Your task to perform on an android device: Search for the best selling video games at Target Image 0: 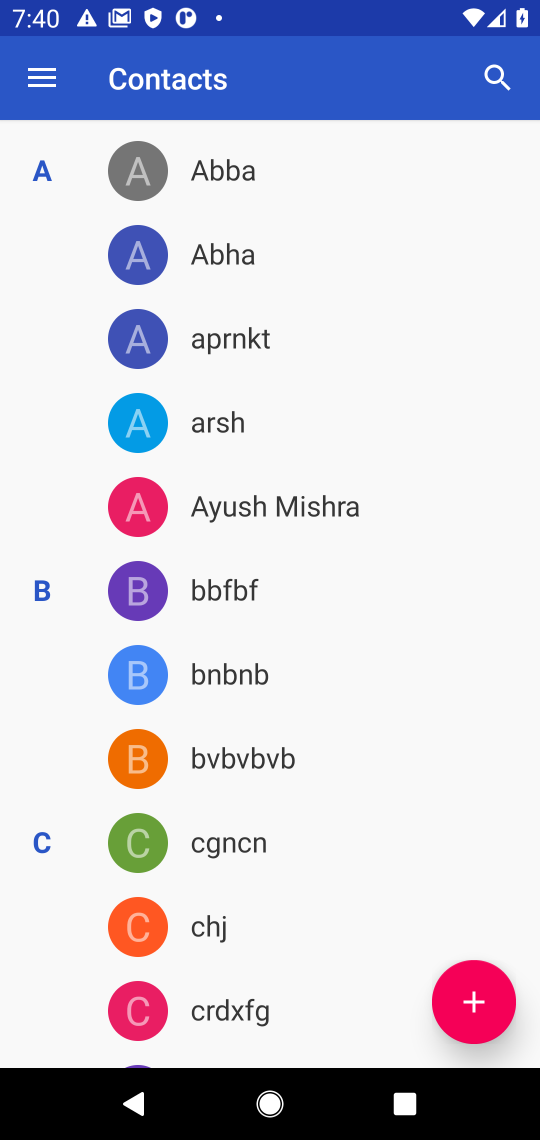
Step 0: press home button
Your task to perform on an android device: Search for the best selling video games at Target Image 1: 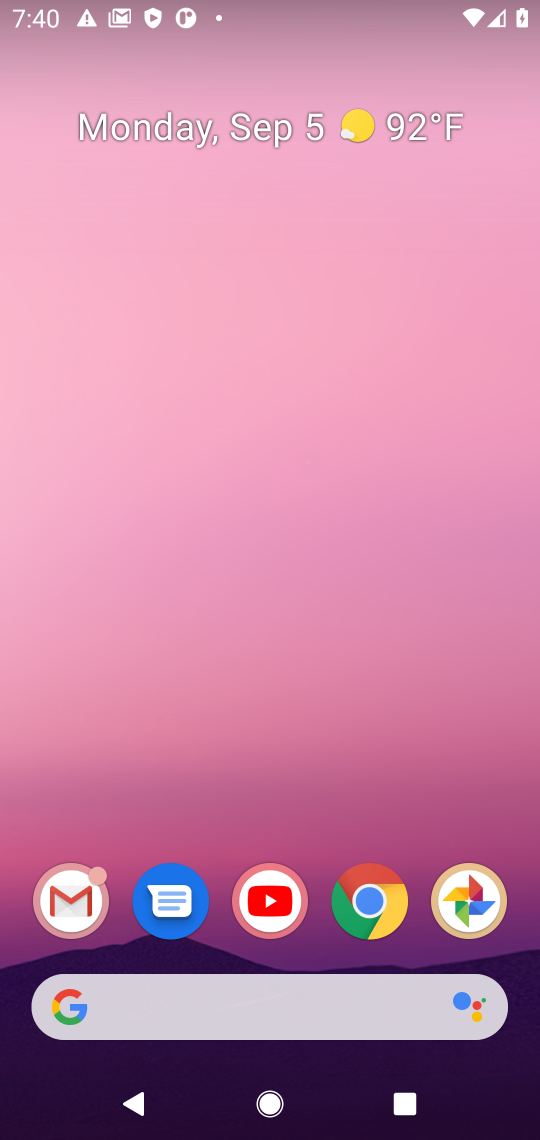
Step 1: click (389, 909)
Your task to perform on an android device: Search for the best selling video games at Target Image 2: 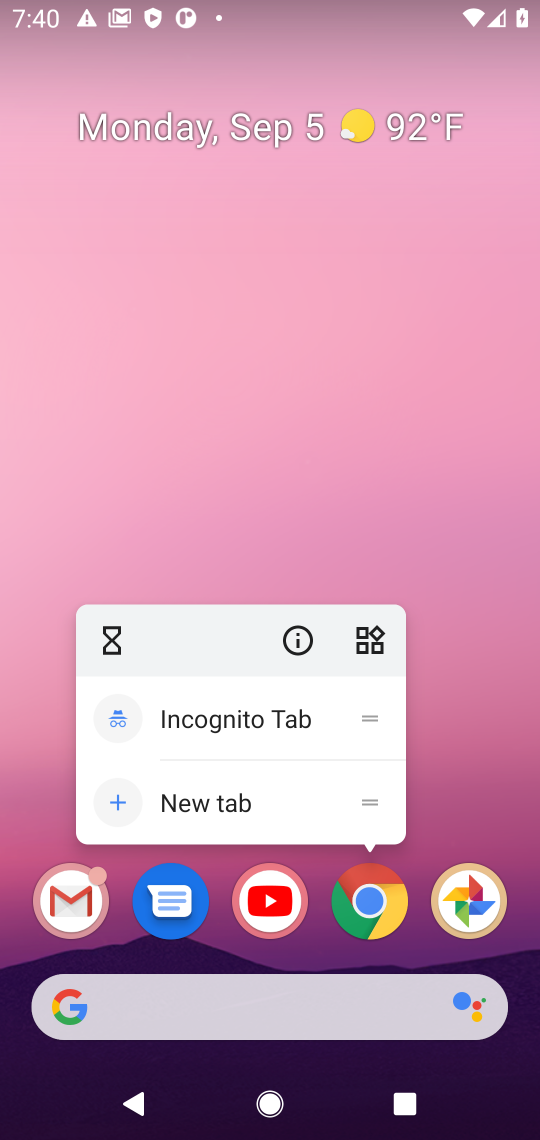
Step 2: click (372, 891)
Your task to perform on an android device: Search for the best selling video games at Target Image 3: 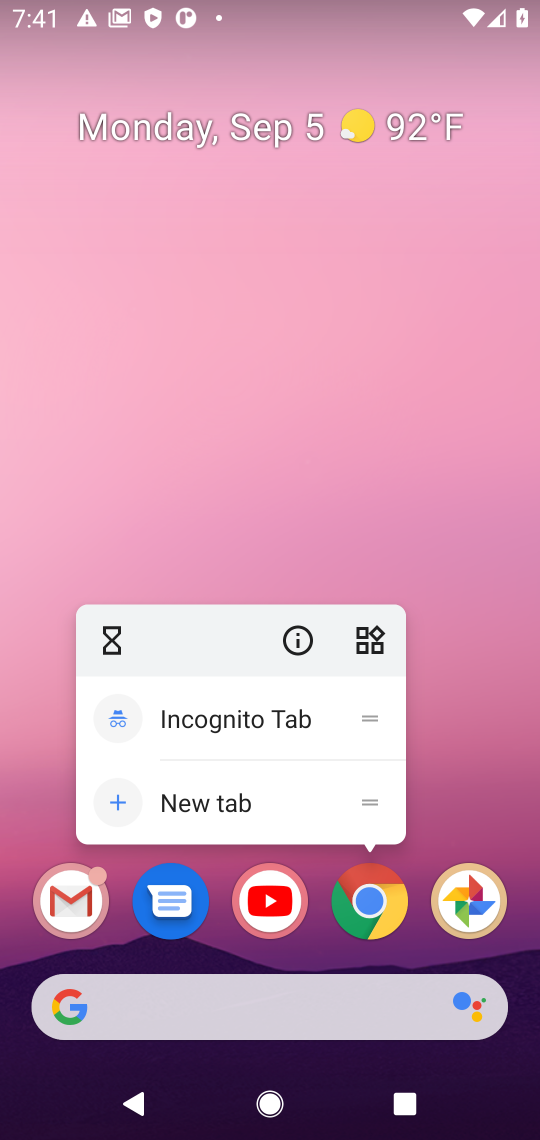
Step 3: click (372, 891)
Your task to perform on an android device: Search for the best selling video games at Target Image 4: 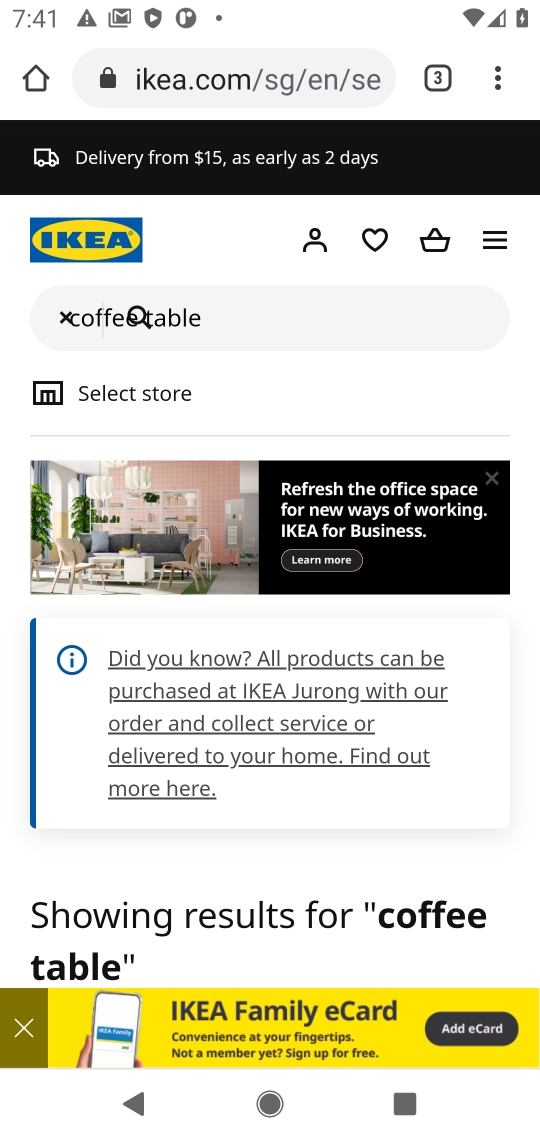
Step 4: click (286, 66)
Your task to perform on an android device: Search for the best selling video games at Target Image 5: 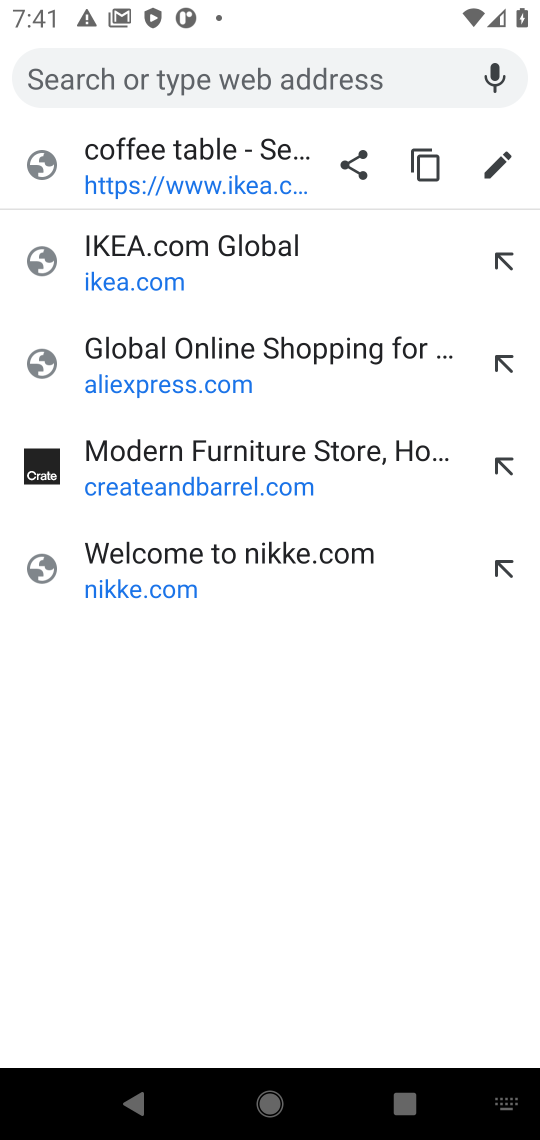
Step 5: type "target"
Your task to perform on an android device: Search for the best selling video games at Target Image 6: 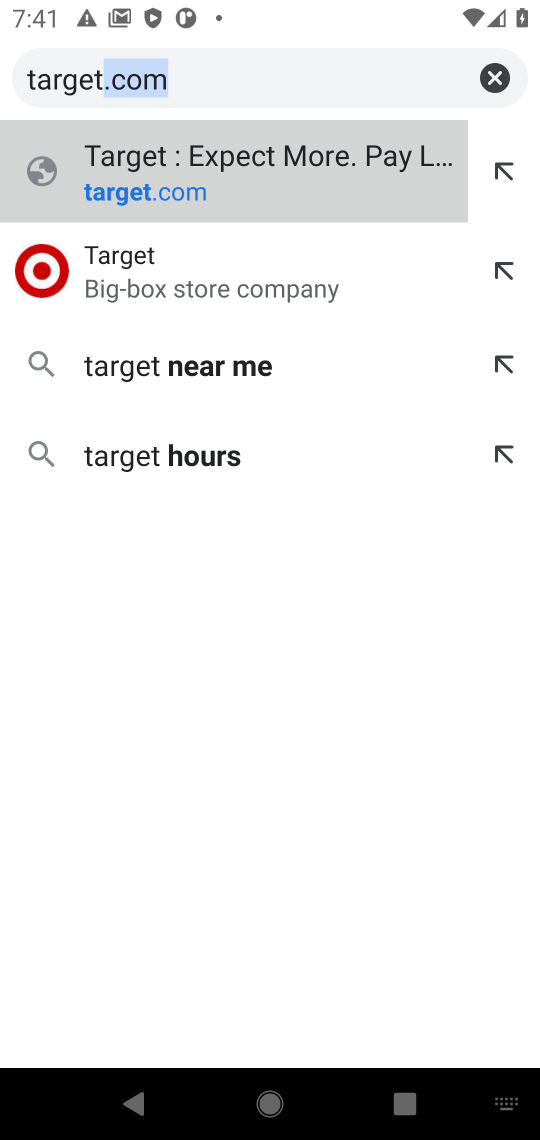
Step 6: click (222, 223)
Your task to perform on an android device: Search for the best selling video games at Target Image 7: 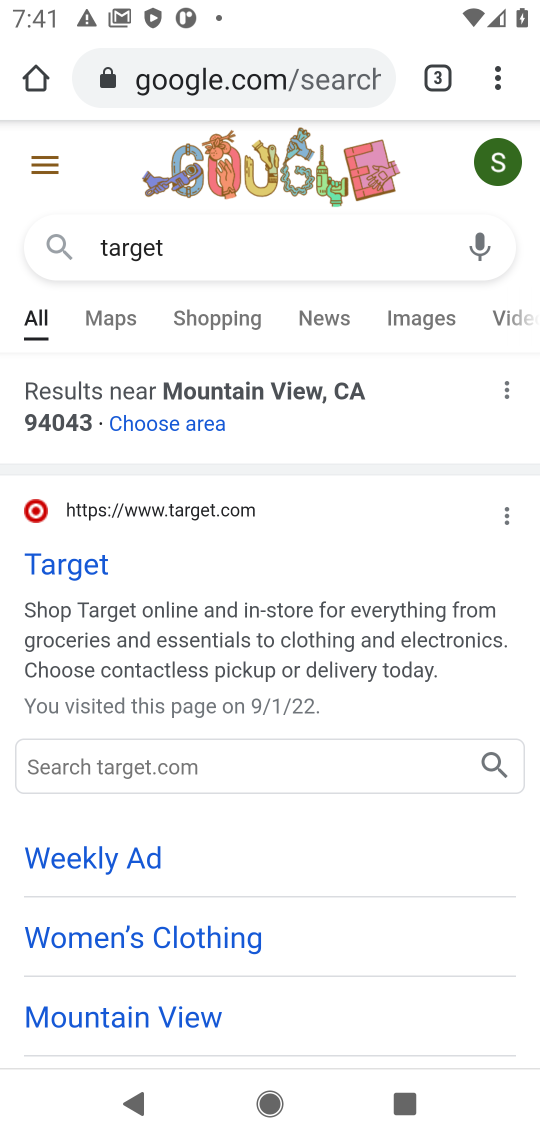
Step 7: click (55, 545)
Your task to perform on an android device: Search for the best selling video games at Target Image 8: 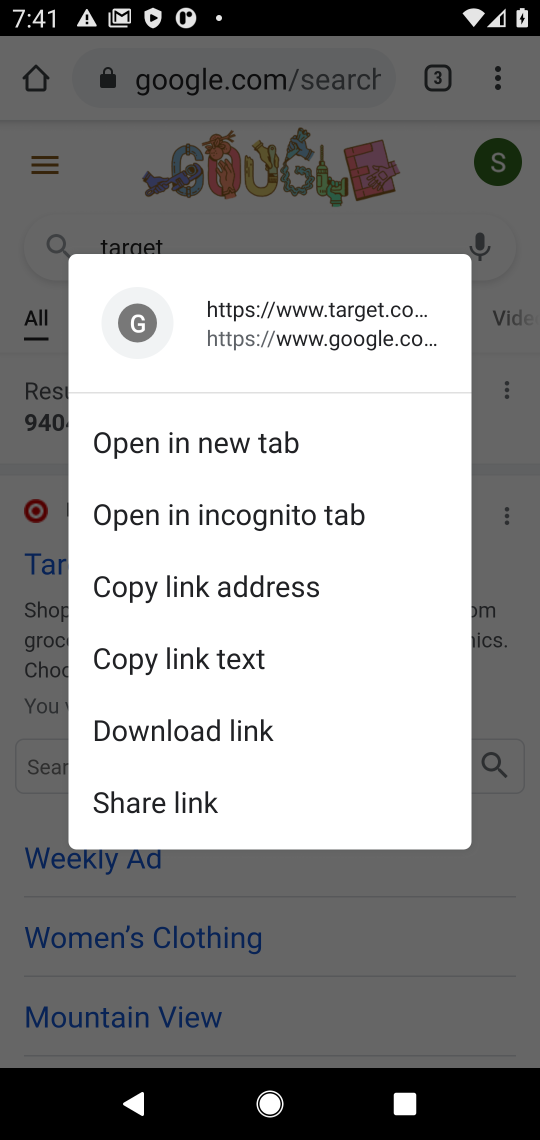
Step 8: click (226, 453)
Your task to perform on an android device: Search for the best selling video games at Target Image 9: 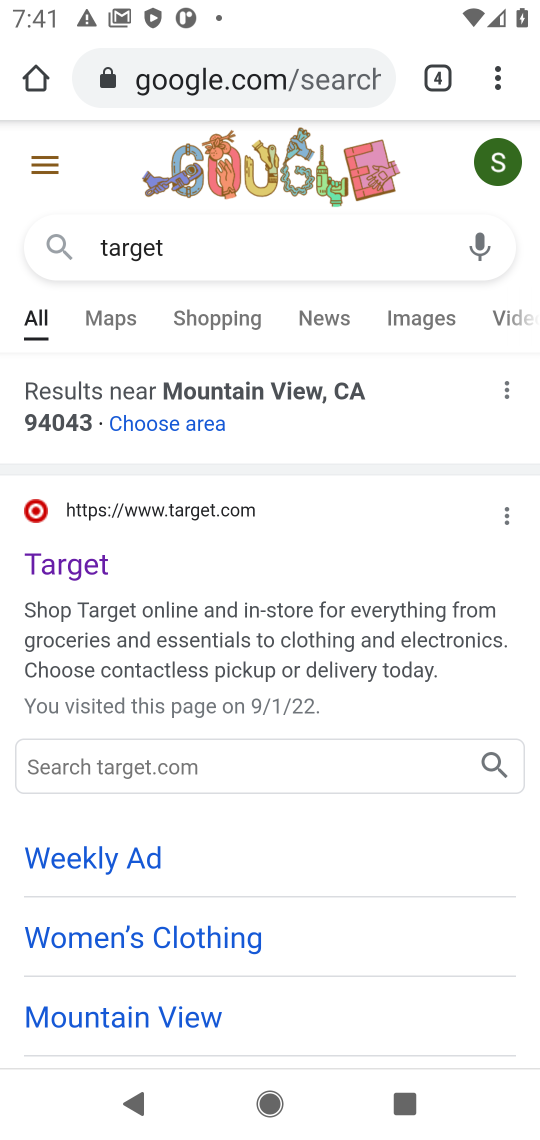
Step 9: click (78, 576)
Your task to perform on an android device: Search for the best selling video games at Target Image 10: 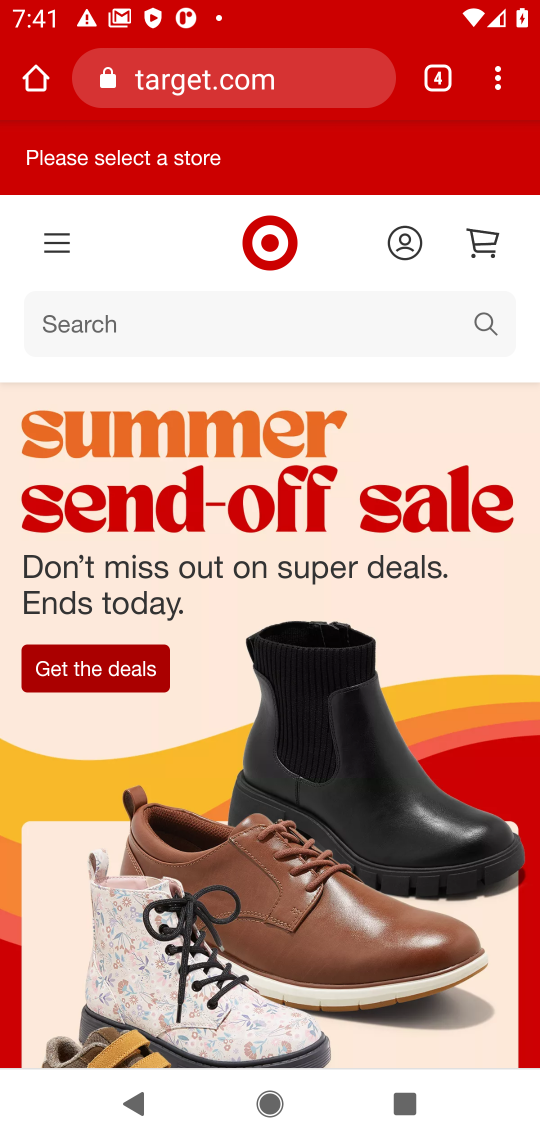
Step 10: click (194, 331)
Your task to perform on an android device: Search for the best selling video games at Target Image 11: 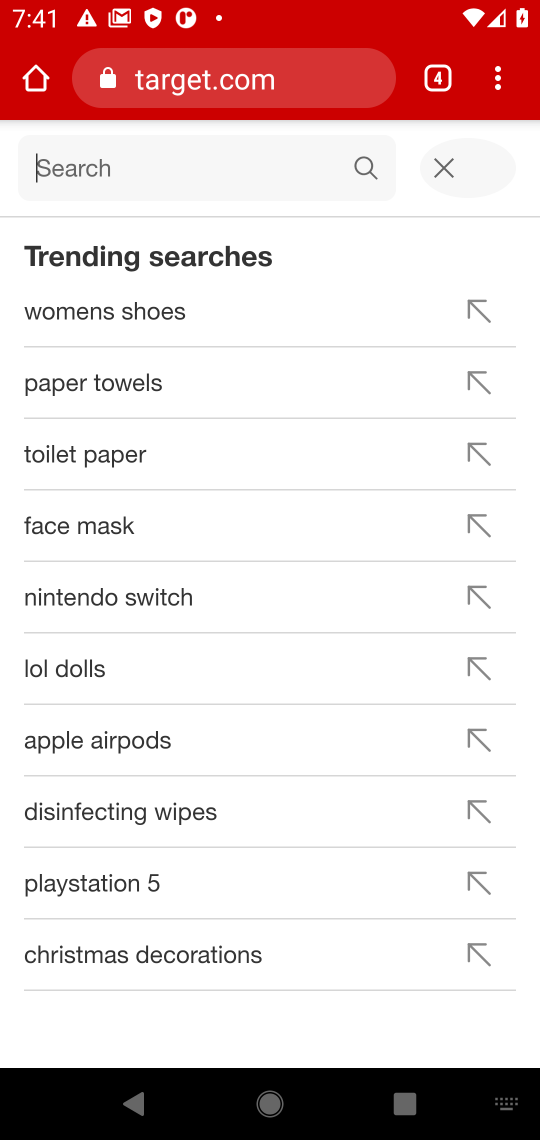
Step 11: type "video game"
Your task to perform on an android device: Search for the best selling video games at Target Image 12: 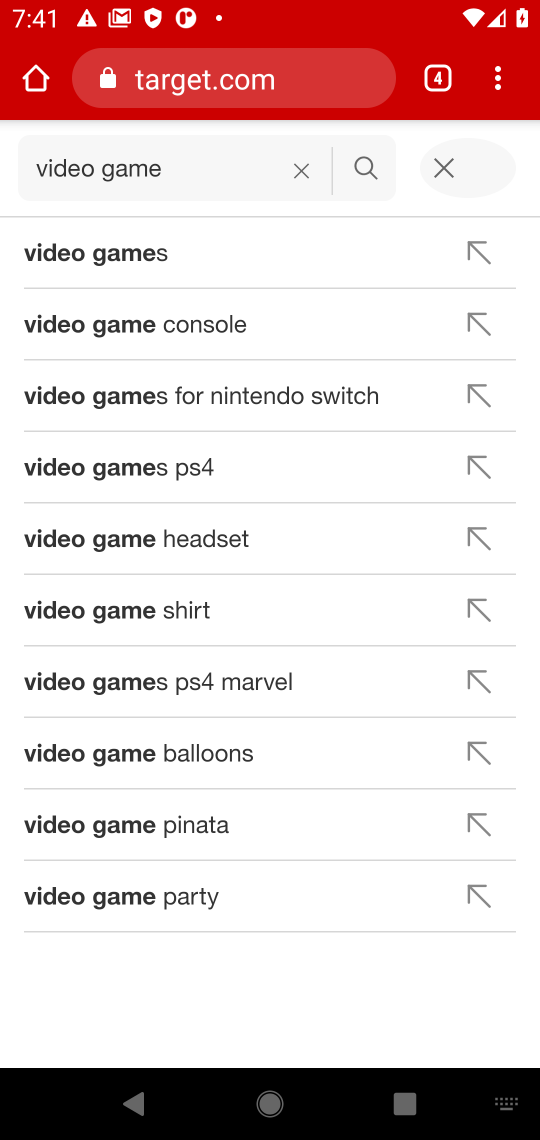
Step 12: click (183, 275)
Your task to perform on an android device: Search for the best selling video games at Target Image 13: 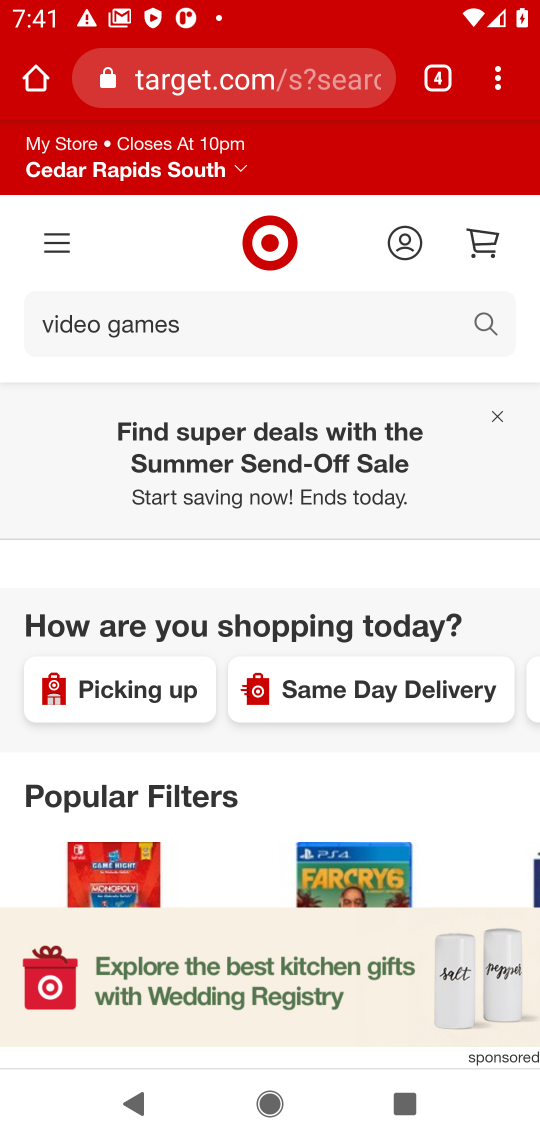
Step 13: click (490, 408)
Your task to perform on an android device: Search for the best selling video games at Target Image 14: 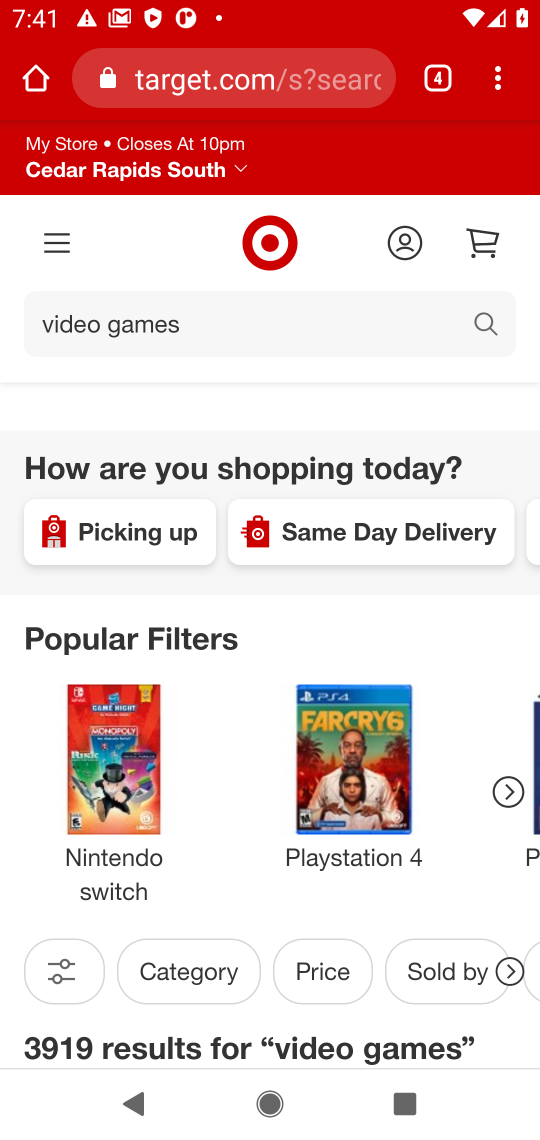
Step 14: task complete